Your task to perform on an android device: delete the emails in spam in the gmail app Image 0: 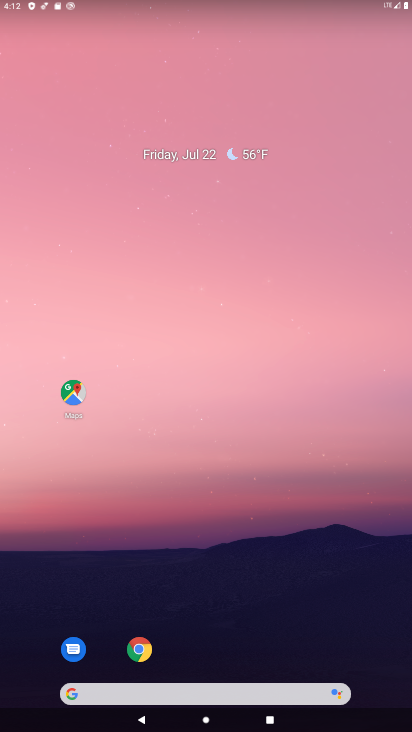
Step 0: drag from (247, 622) to (196, 1)
Your task to perform on an android device: delete the emails in spam in the gmail app Image 1: 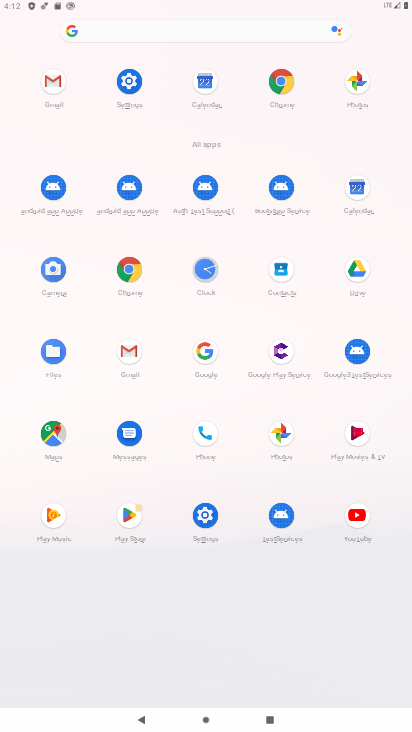
Step 1: click (124, 355)
Your task to perform on an android device: delete the emails in spam in the gmail app Image 2: 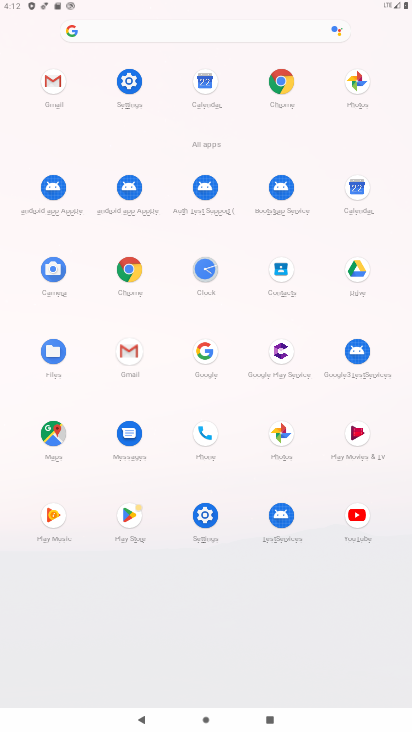
Step 2: click (124, 355)
Your task to perform on an android device: delete the emails in spam in the gmail app Image 3: 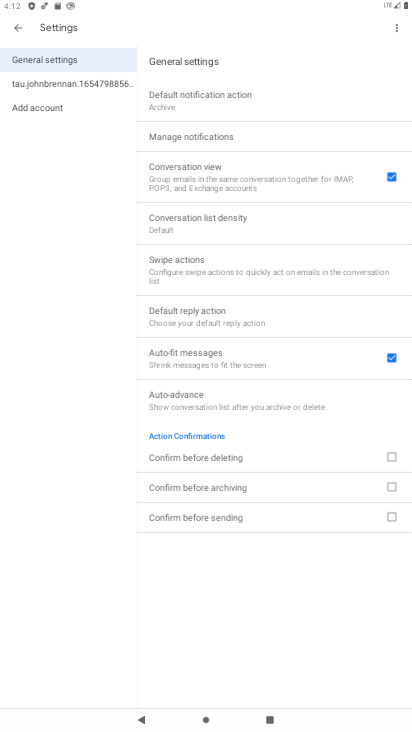
Step 3: click (125, 355)
Your task to perform on an android device: delete the emails in spam in the gmail app Image 4: 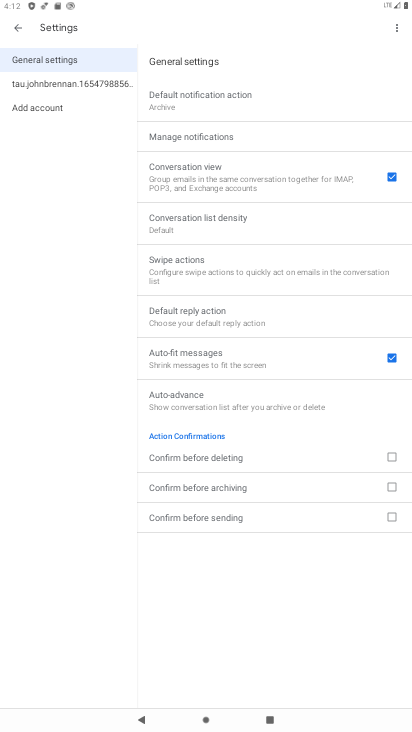
Step 4: click (132, 356)
Your task to perform on an android device: delete the emails in spam in the gmail app Image 5: 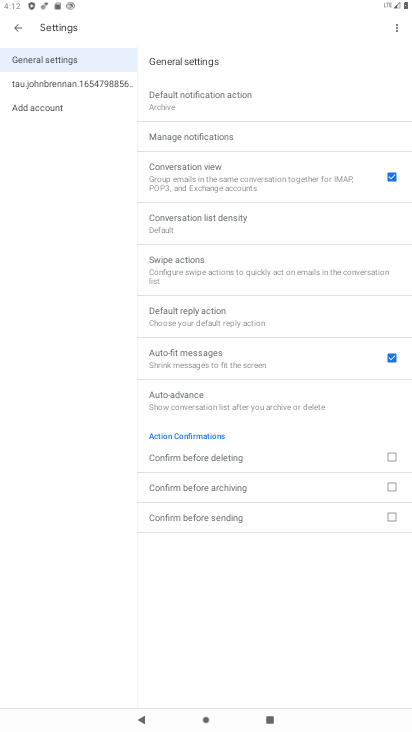
Step 5: click (132, 356)
Your task to perform on an android device: delete the emails in spam in the gmail app Image 6: 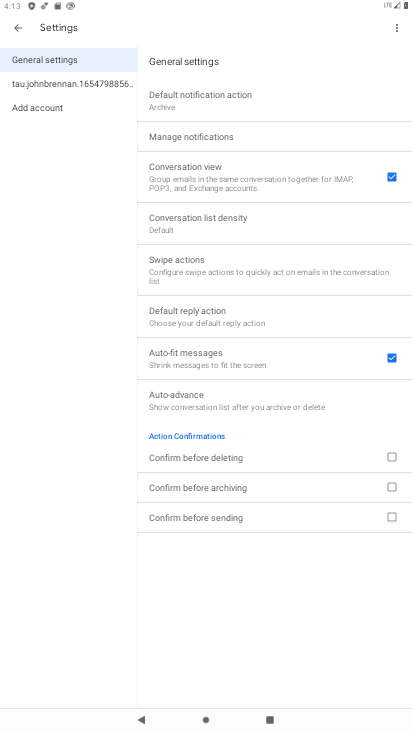
Step 6: click (29, 74)
Your task to perform on an android device: delete the emails in spam in the gmail app Image 7: 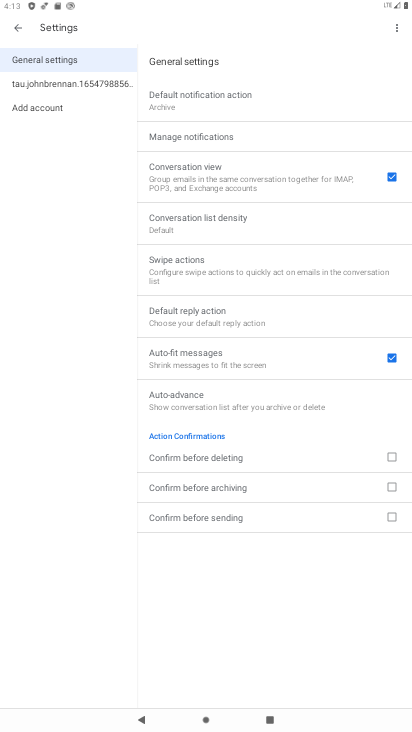
Step 7: click (30, 74)
Your task to perform on an android device: delete the emails in spam in the gmail app Image 8: 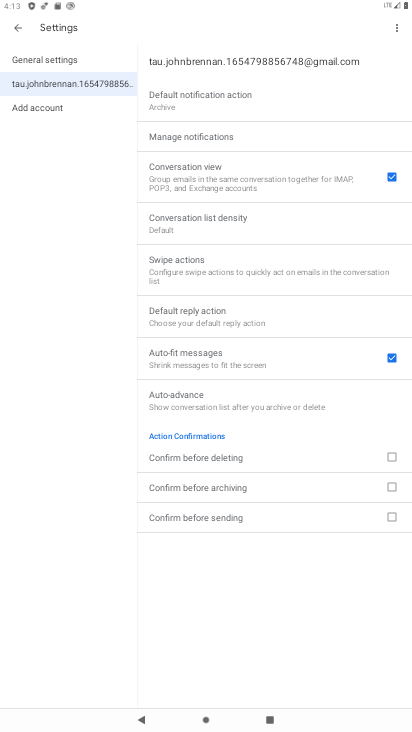
Step 8: click (33, 74)
Your task to perform on an android device: delete the emails in spam in the gmail app Image 9: 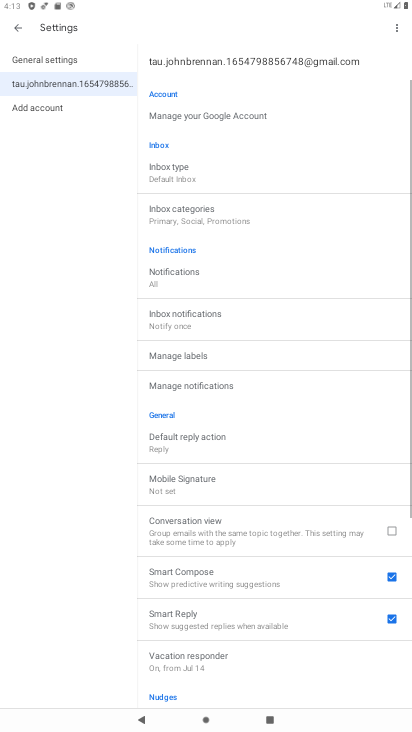
Step 9: click (36, 72)
Your task to perform on an android device: delete the emails in spam in the gmail app Image 10: 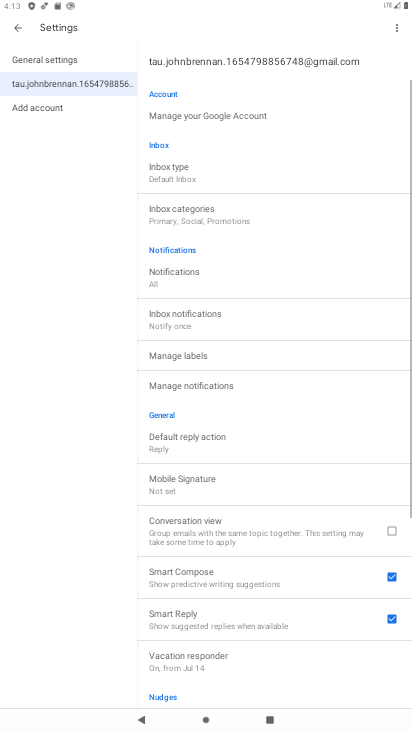
Step 10: click (36, 72)
Your task to perform on an android device: delete the emails in spam in the gmail app Image 11: 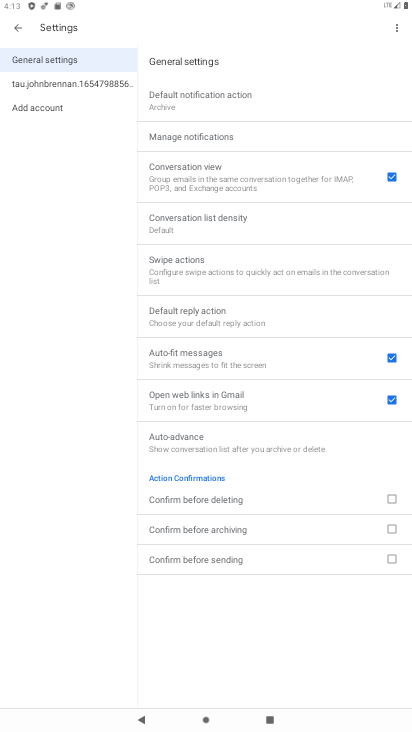
Step 11: click (77, 84)
Your task to perform on an android device: delete the emails in spam in the gmail app Image 12: 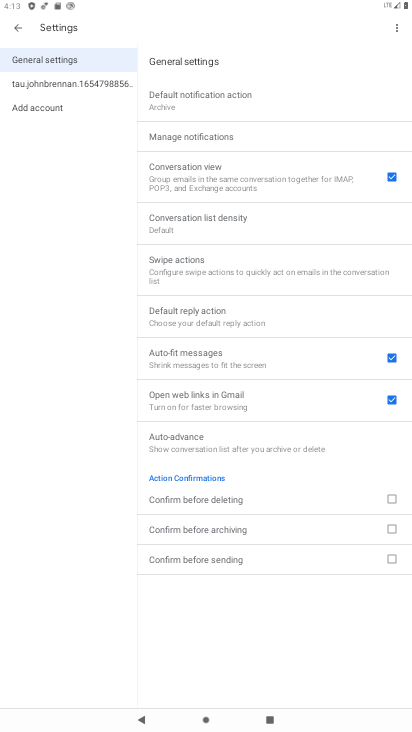
Step 12: click (76, 83)
Your task to perform on an android device: delete the emails in spam in the gmail app Image 13: 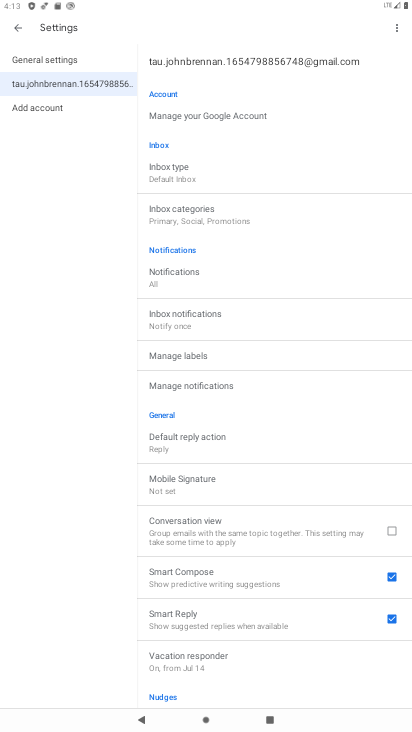
Step 13: drag from (199, 476) to (193, 50)
Your task to perform on an android device: delete the emails in spam in the gmail app Image 14: 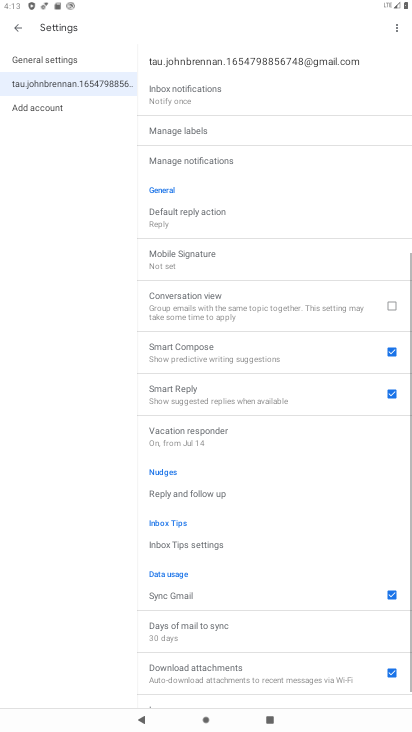
Step 14: drag from (188, 314) to (193, 146)
Your task to perform on an android device: delete the emails in spam in the gmail app Image 15: 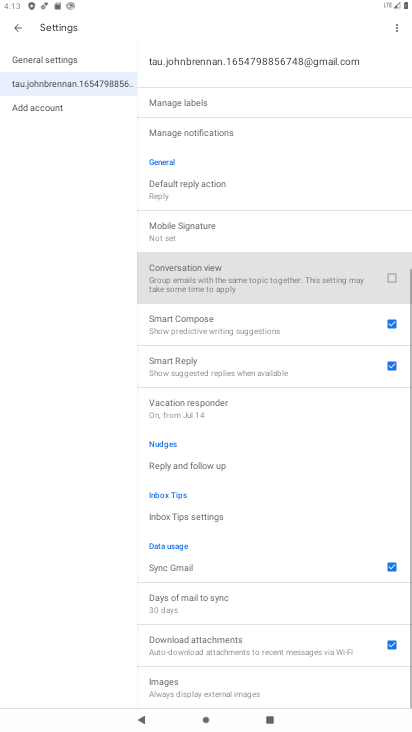
Step 15: click (220, 160)
Your task to perform on an android device: delete the emails in spam in the gmail app Image 16: 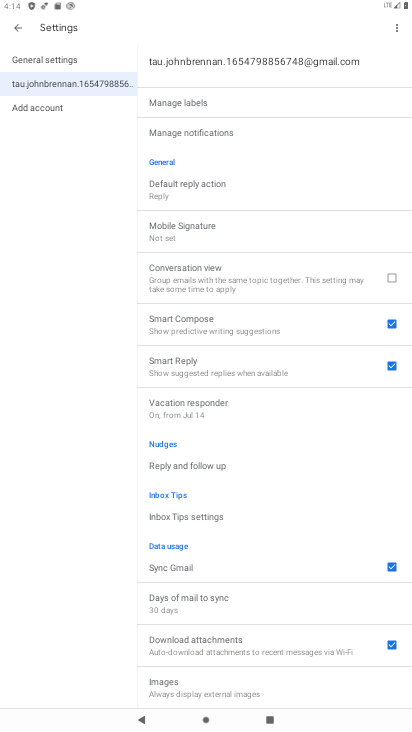
Step 16: task complete